Your task to perform on an android device: open a new tab in the chrome app Image 0: 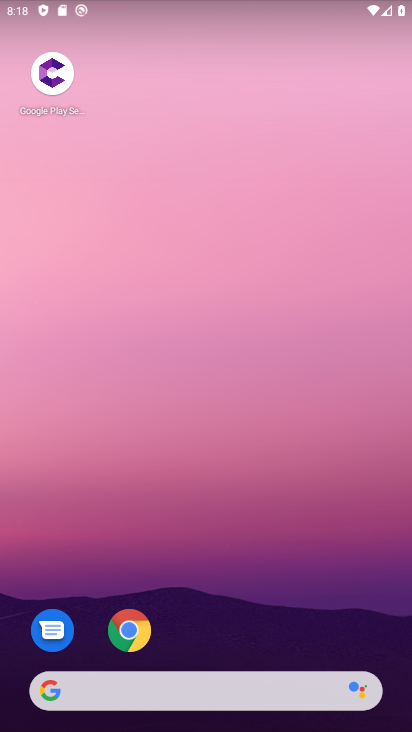
Step 0: click (132, 633)
Your task to perform on an android device: open a new tab in the chrome app Image 1: 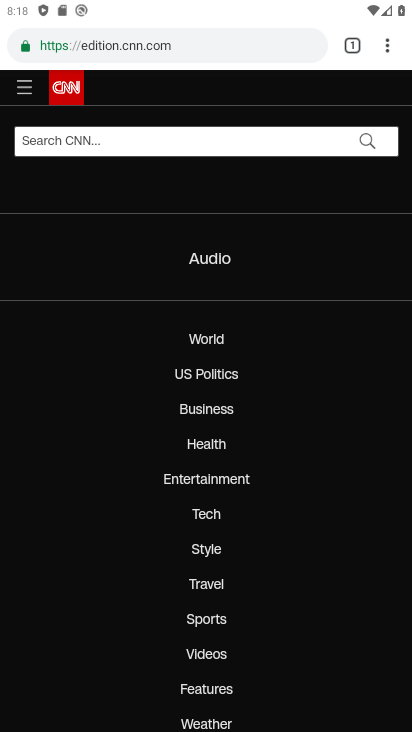
Step 1: click (388, 45)
Your task to perform on an android device: open a new tab in the chrome app Image 2: 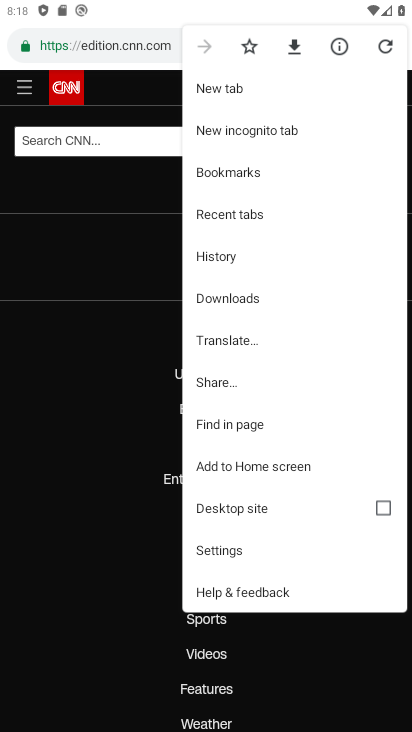
Step 2: click (238, 88)
Your task to perform on an android device: open a new tab in the chrome app Image 3: 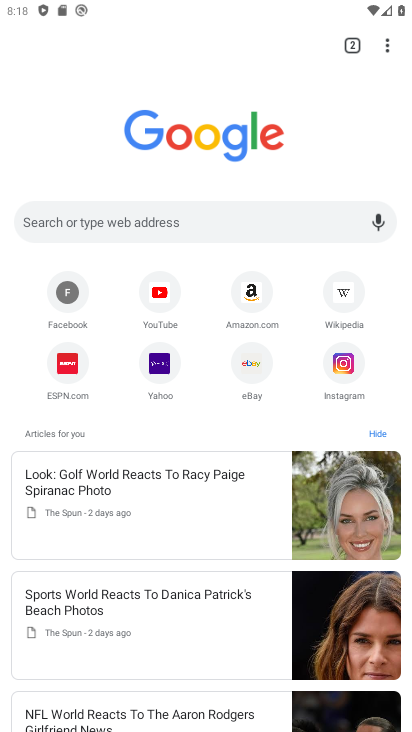
Step 3: task complete